Your task to perform on an android device: Search for seafood restaurants on Google Maps Image 0: 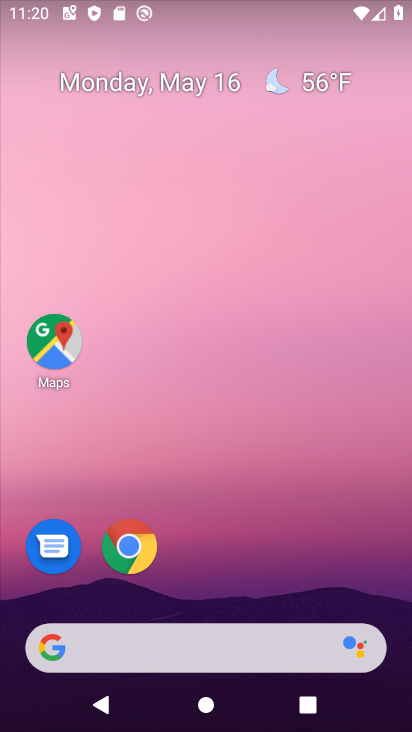
Step 0: drag from (290, 434) to (165, 7)
Your task to perform on an android device: Search for seafood restaurants on Google Maps Image 1: 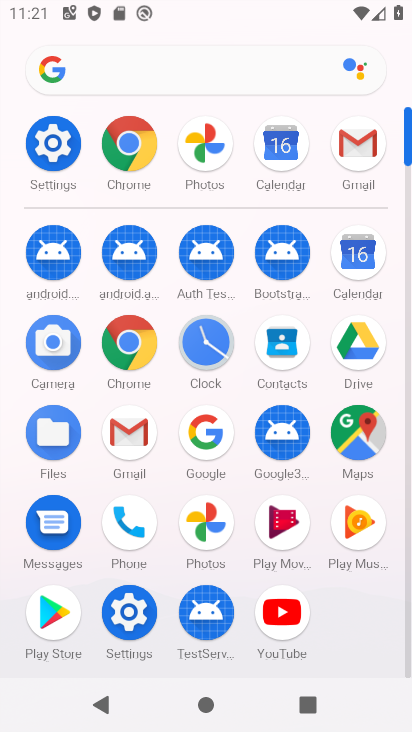
Step 1: click (344, 421)
Your task to perform on an android device: Search for seafood restaurants on Google Maps Image 2: 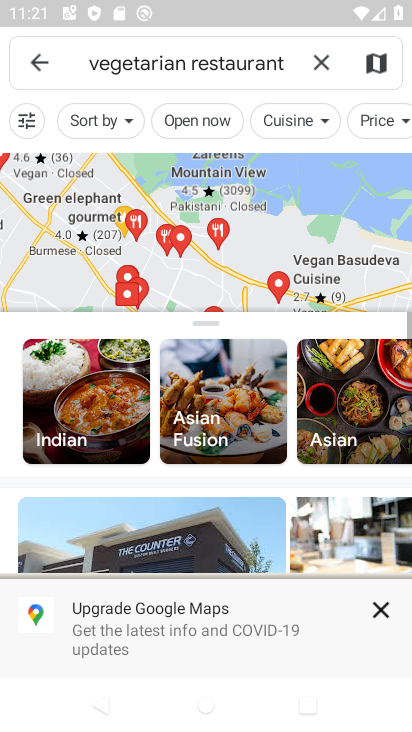
Step 2: click (298, 55)
Your task to perform on an android device: Search for seafood restaurants on Google Maps Image 3: 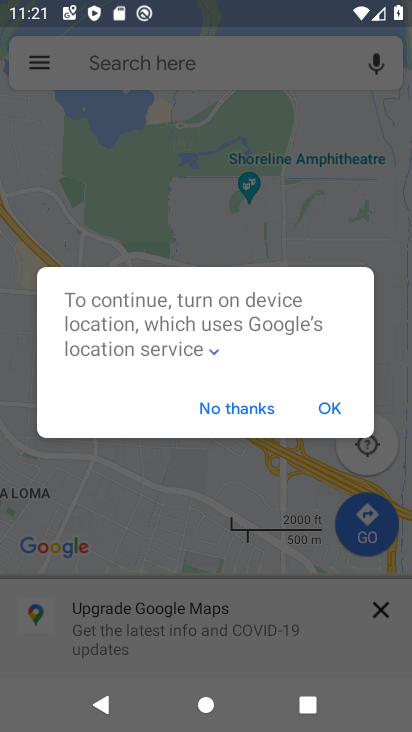
Step 3: click (256, 400)
Your task to perform on an android device: Search for seafood restaurants on Google Maps Image 4: 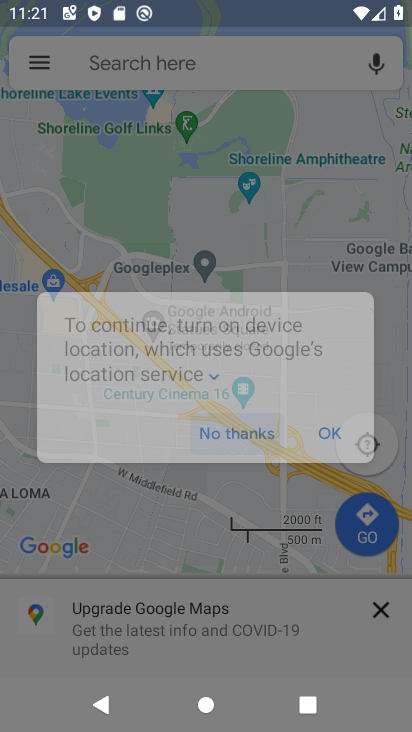
Step 4: click (207, 71)
Your task to perform on an android device: Search for seafood restaurants on Google Maps Image 5: 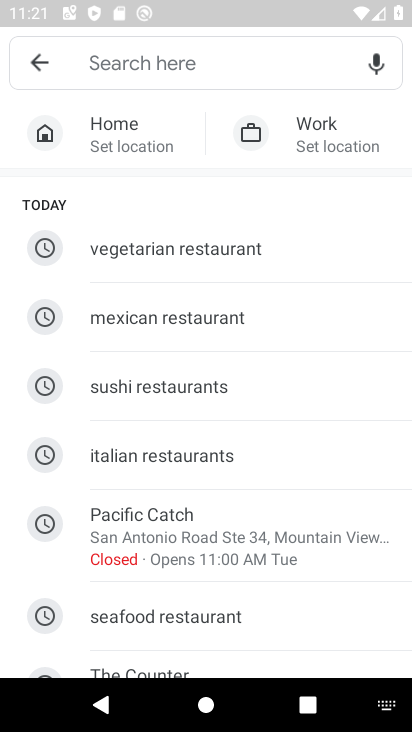
Step 5: click (173, 617)
Your task to perform on an android device: Search for seafood restaurants on Google Maps Image 6: 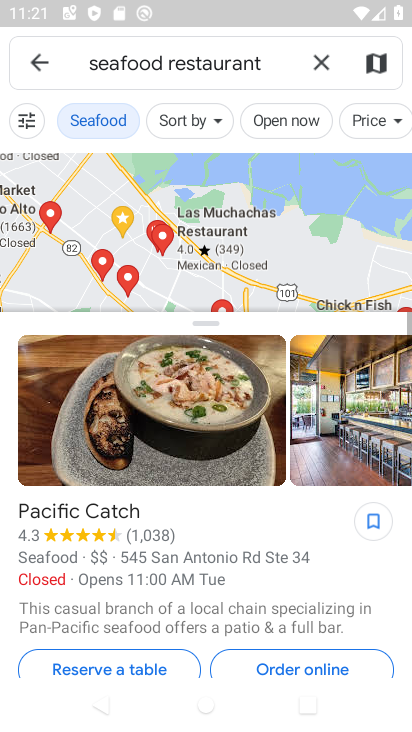
Step 6: task complete